Your task to perform on an android device: turn off wifi Image 0: 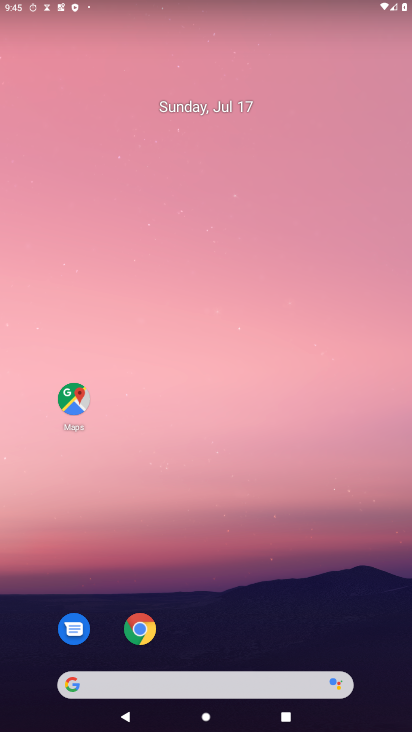
Step 0: drag from (240, 709) to (269, 86)
Your task to perform on an android device: turn off wifi Image 1: 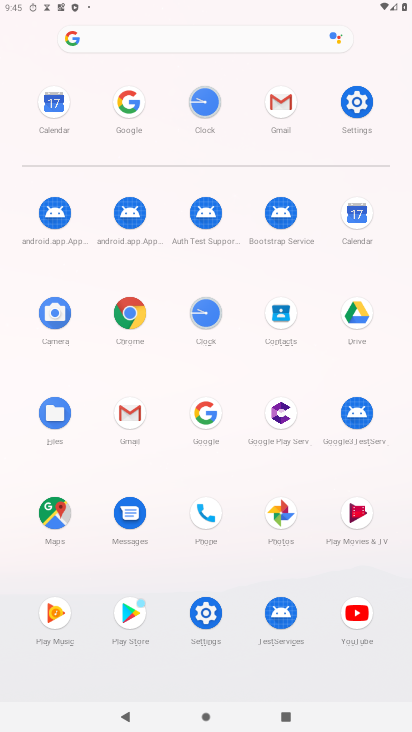
Step 1: click (359, 105)
Your task to perform on an android device: turn off wifi Image 2: 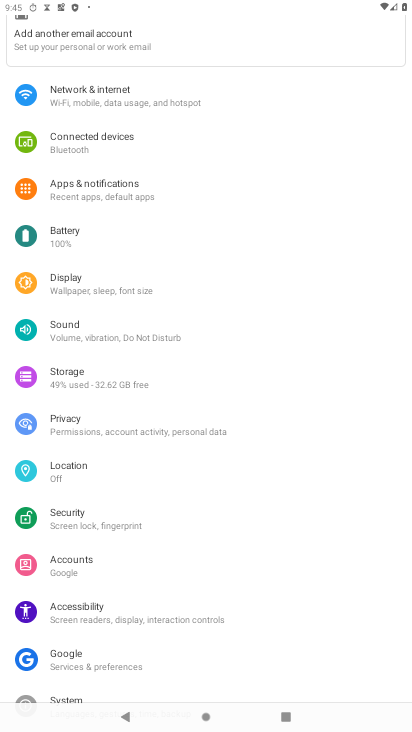
Step 2: drag from (111, 69) to (96, 487)
Your task to perform on an android device: turn off wifi Image 3: 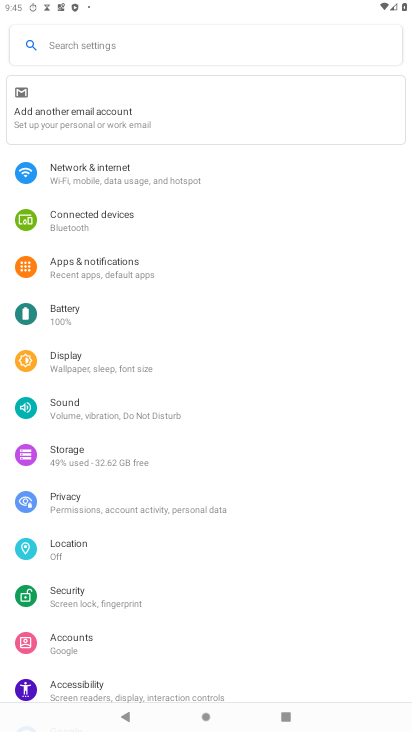
Step 3: click (90, 179)
Your task to perform on an android device: turn off wifi Image 4: 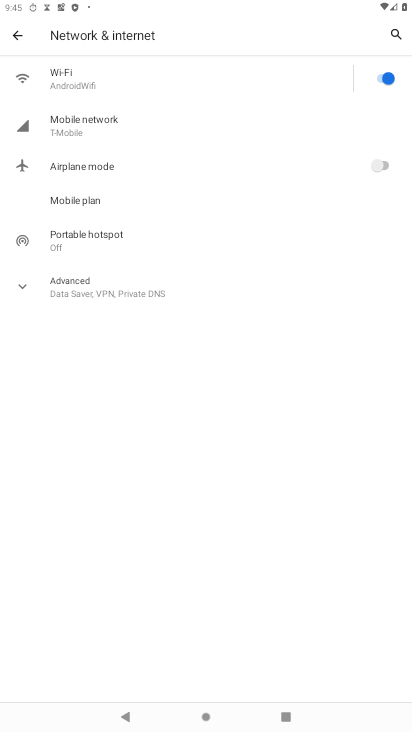
Step 4: click (385, 78)
Your task to perform on an android device: turn off wifi Image 5: 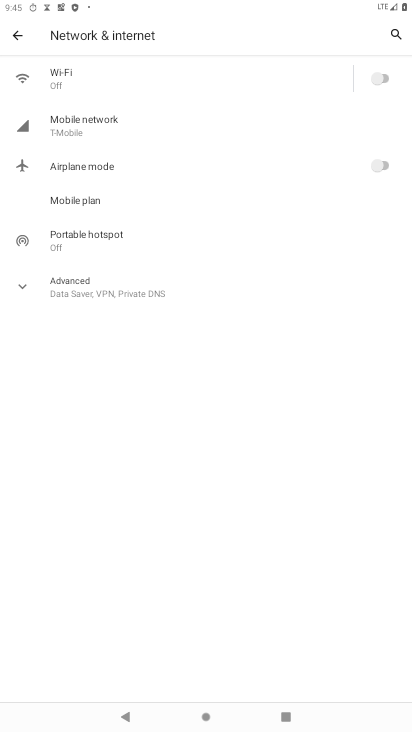
Step 5: task complete